Your task to perform on an android device: open app "WhatsApp Messenger" (install if not already installed) Image 0: 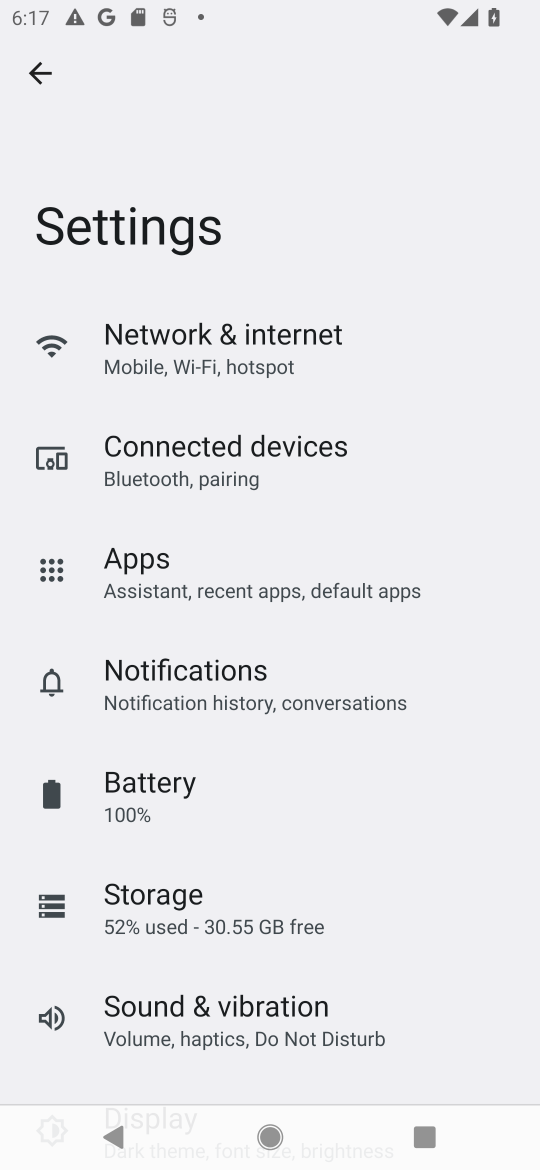
Step 0: press home button
Your task to perform on an android device: open app "WhatsApp Messenger" (install if not already installed) Image 1: 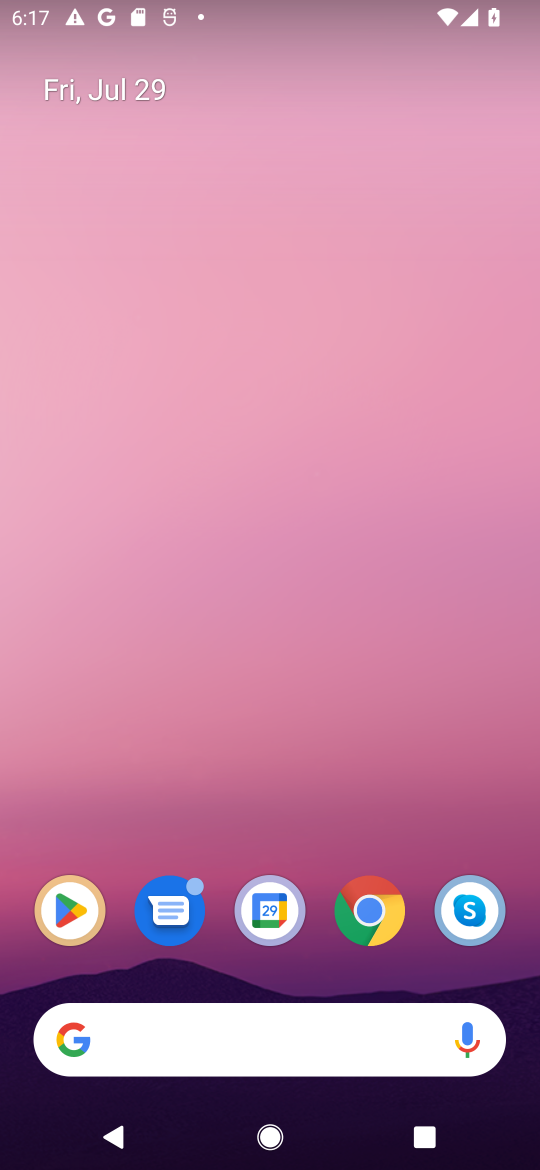
Step 1: drag from (268, 986) to (205, 369)
Your task to perform on an android device: open app "WhatsApp Messenger" (install if not already installed) Image 2: 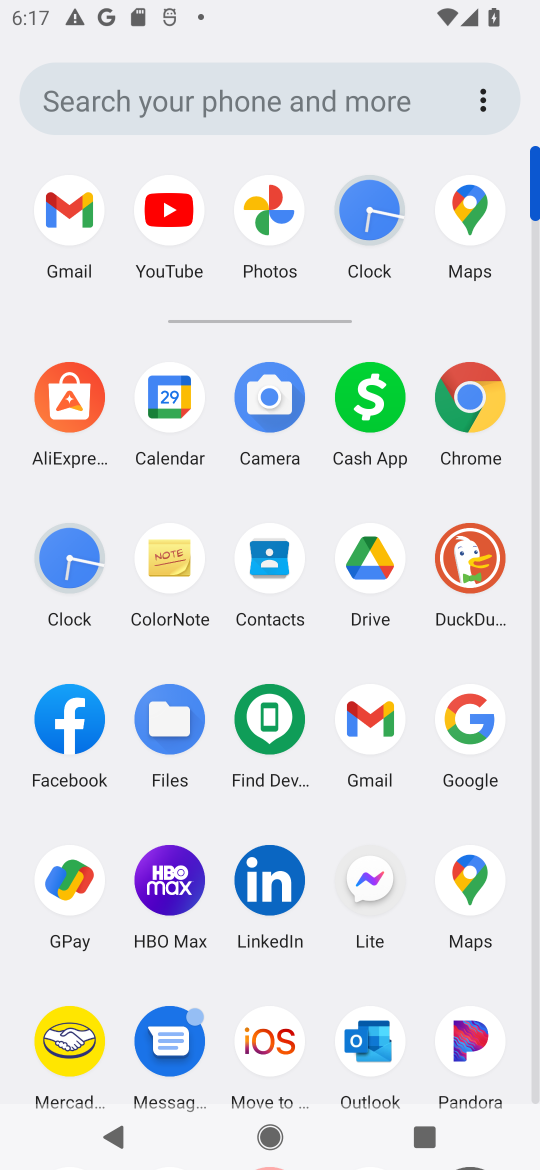
Step 2: drag from (325, 919) to (273, 431)
Your task to perform on an android device: open app "WhatsApp Messenger" (install if not already installed) Image 3: 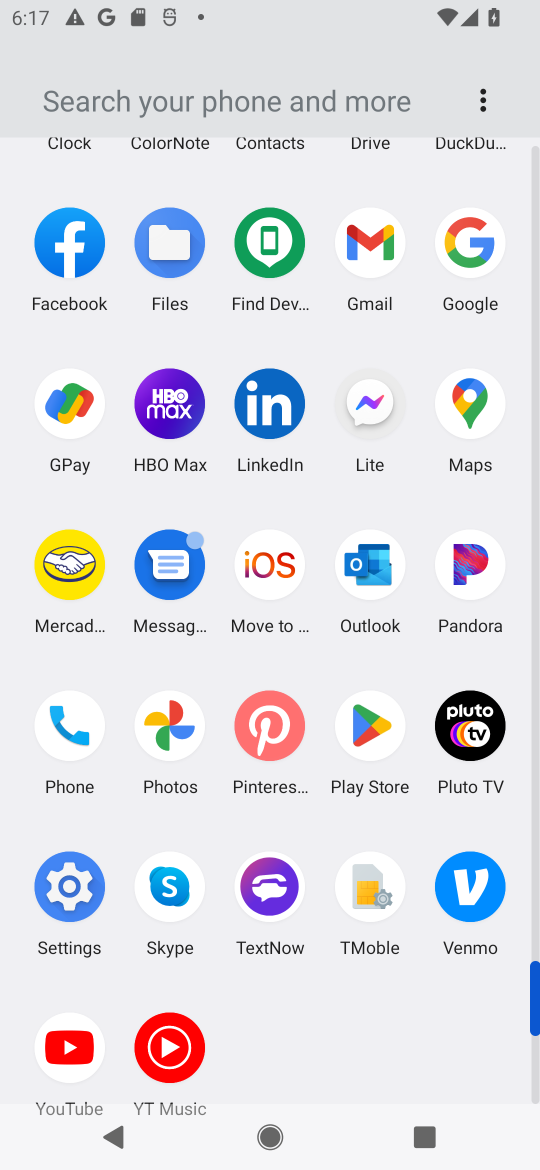
Step 3: click (365, 728)
Your task to perform on an android device: open app "WhatsApp Messenger" (install if not already installed) Image 4: 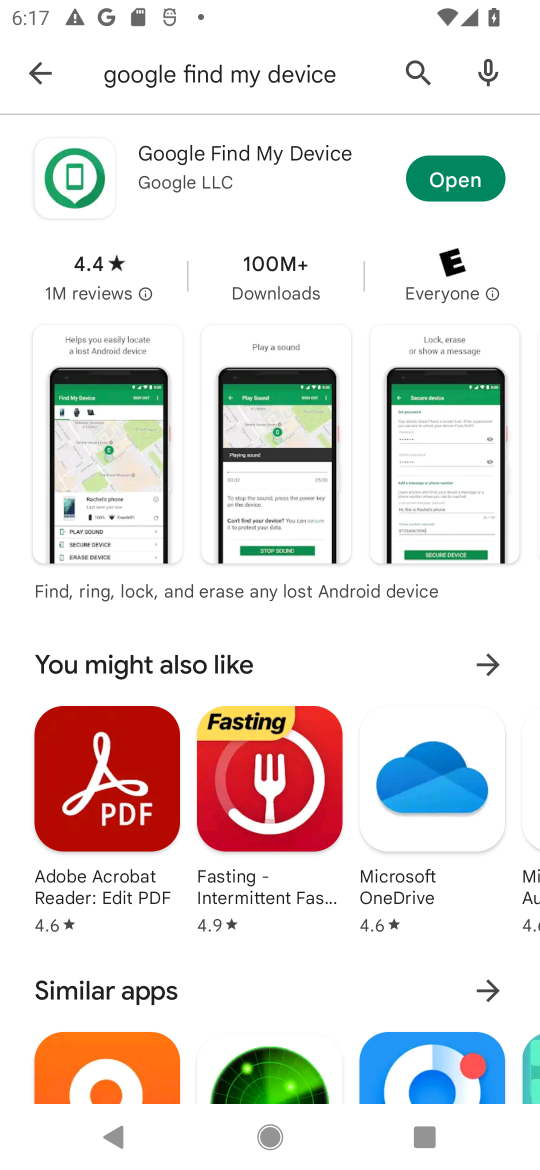
Step 4: click (96, 79)
Your task to perform on an android device: open app "WhatsApp Messenger" (install if not already installed) Image 5: 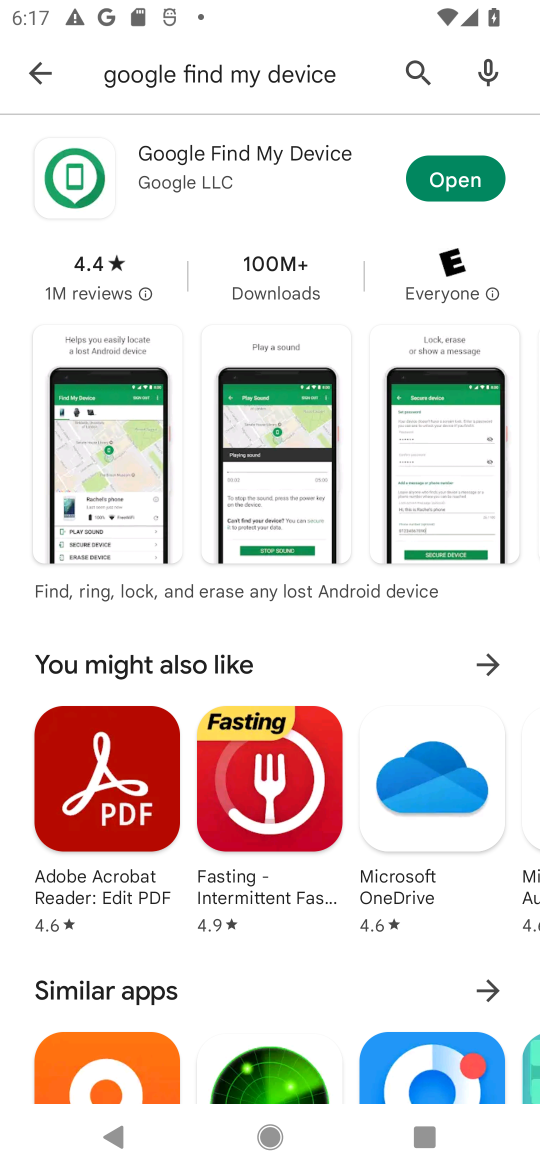
Step 5: click (37, 75)
Your task to perform on an android device: open app "WhatsApp Messenger" (install if not already installed) Image 6: 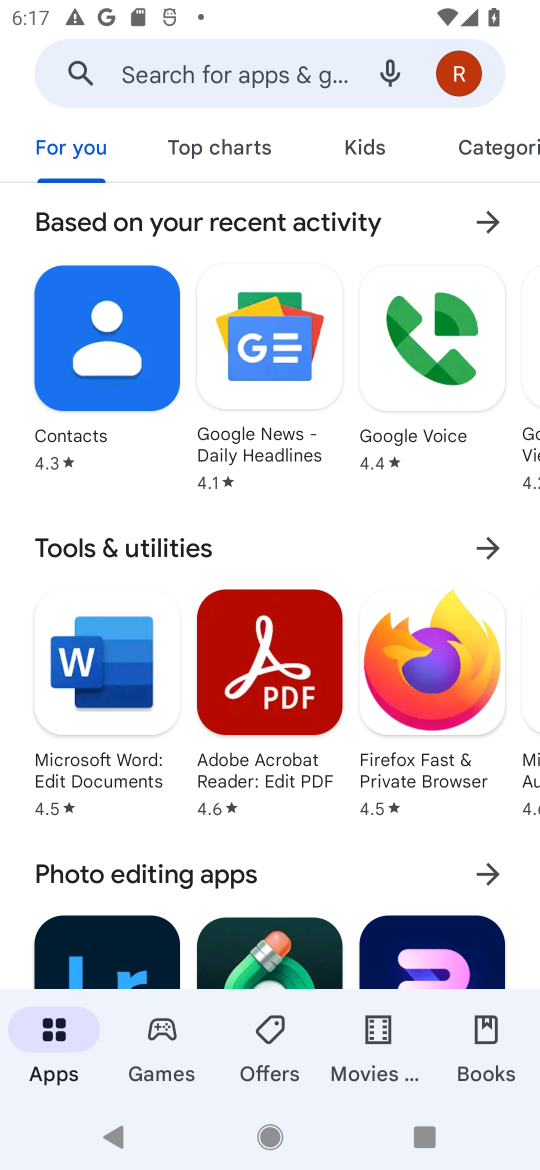
Step 6: click (179, 80)
Your task to perform on an android device: open app "WhatsApp Messenger" (install if not already installed) Image 7: 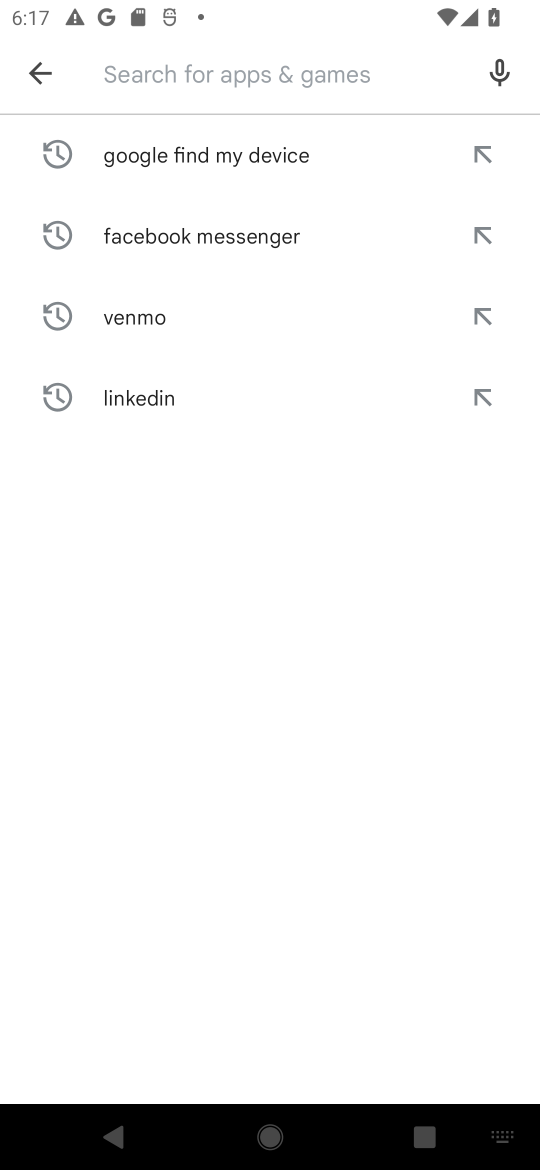
Step 7: type "WhatsApp Messenger"
Your task to perform on an android device: open app "WhatsApp Messenger" (install if not already installed) Image 8: 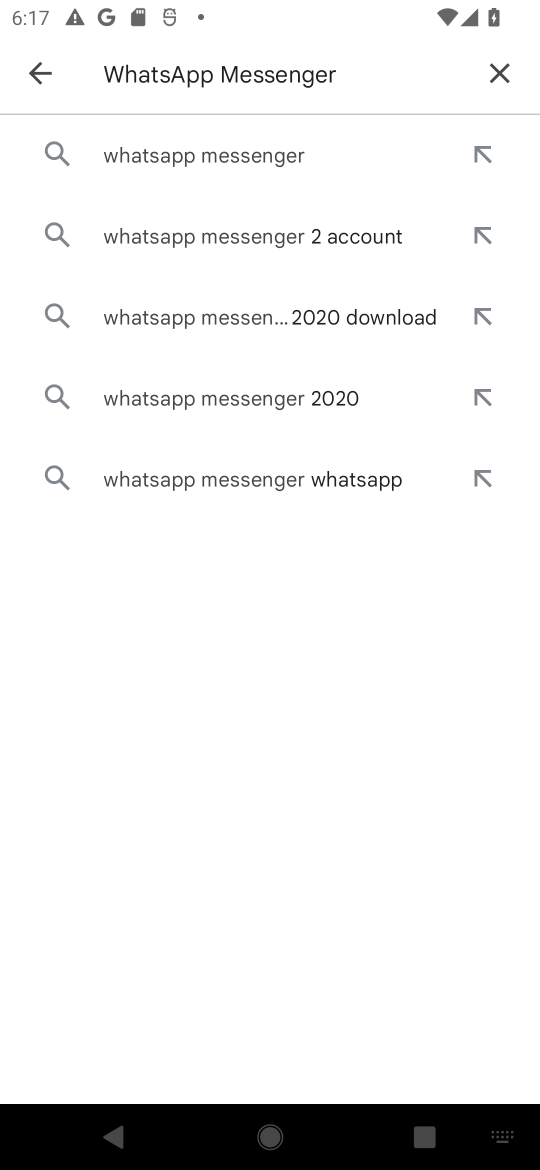
Step 8: click (151, 161)
Your task to perform on an android device: open app "WhatsApp Messenger" (install if not already installed) Image 9: 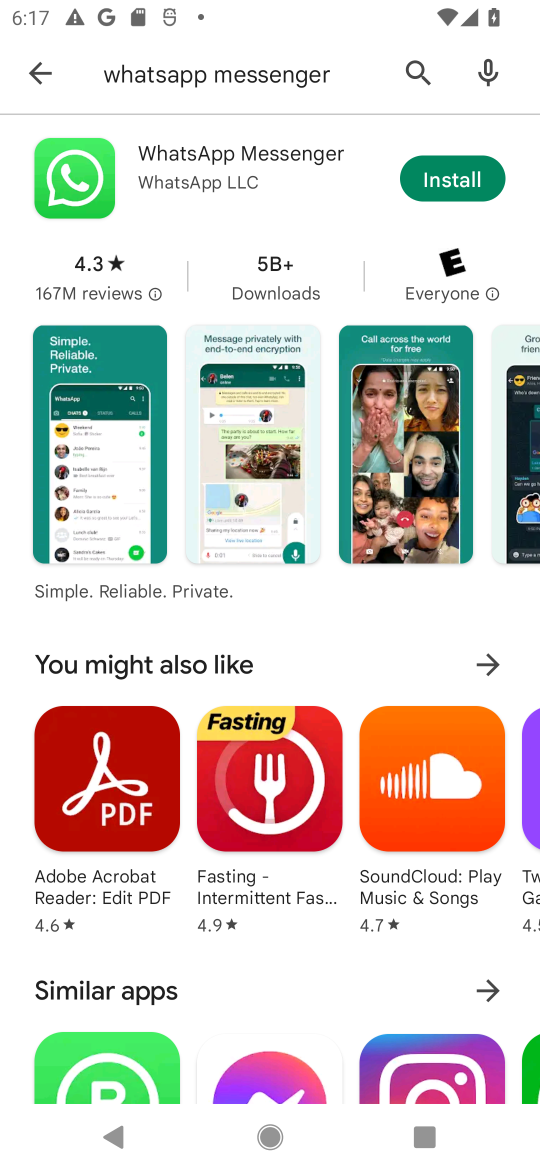
Step 9: click (434, 183)
Your task to perform on an android device: open app "WhatsApp Messenger" (install if not already installed) Image 10: 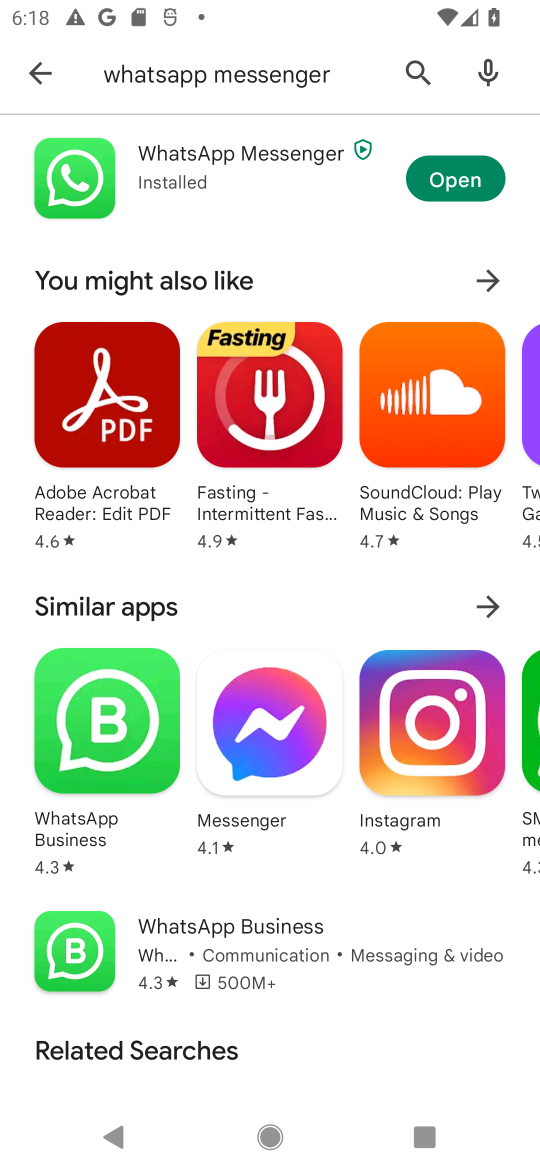
Step 10: click (420, 177)
Your task to perform on an android device: open app "WhatsApp Messenger" (install if not already installed) Image 11: 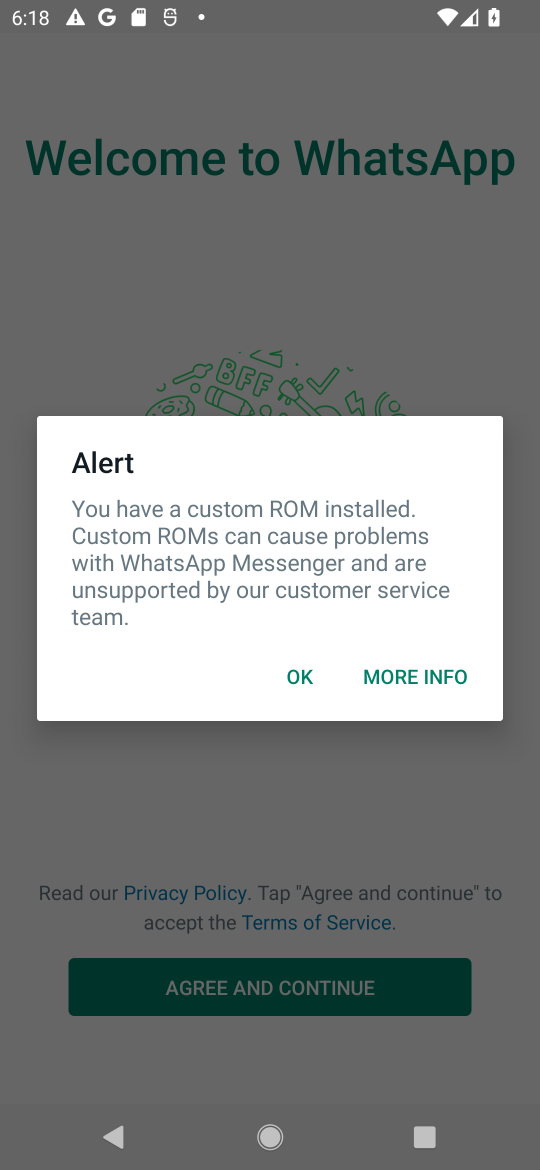
Step 11: task complete